Your task to perform on an android device: Open the Play Movies app and select the watchlist tab. Image 0: 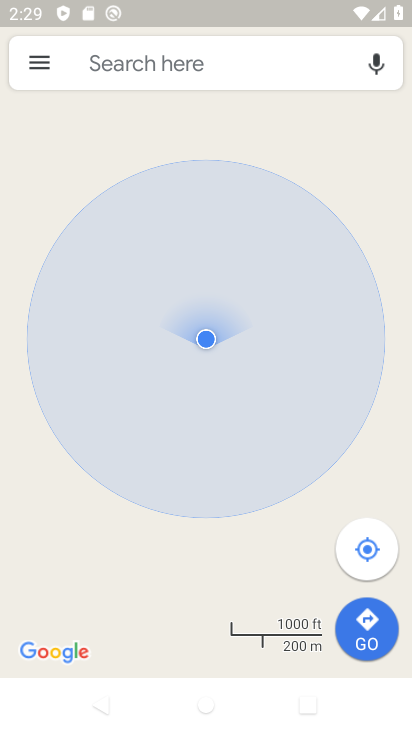
Step 0: press home button
Your task to perform on an android device: Open the Play Movies app and select the watchlist tab. Image 1: 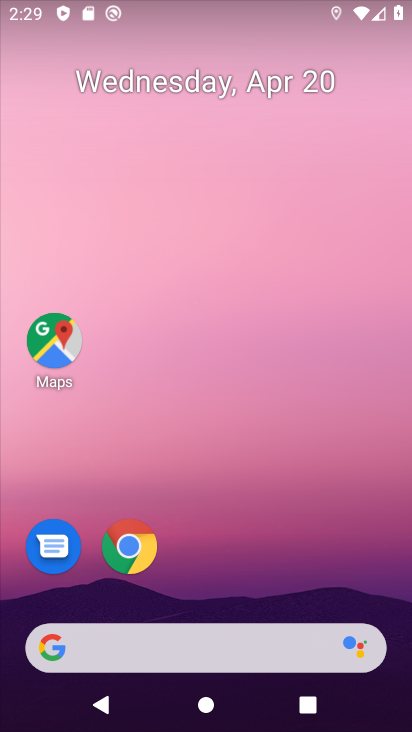
Step 1: drag from (257, 501) to (260, 100)
Your task to perform on an android device: Open the Play Movies app and select the watchlist tab. Image 2: 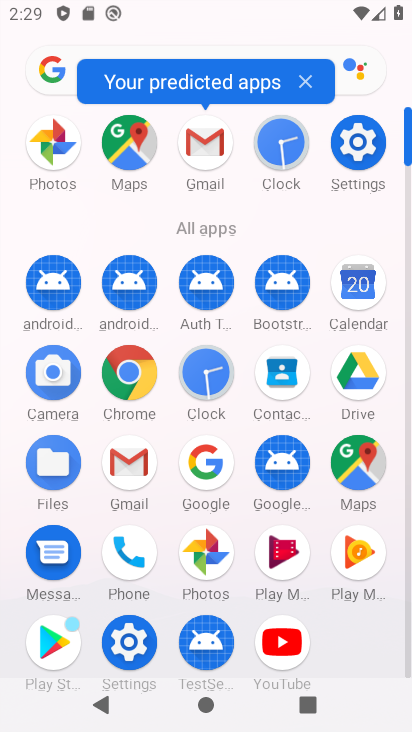
Step 2: click (292, 565)
Your task to perform on an android device: Open the Play Movies app and select the watchlist tab. Image 3: 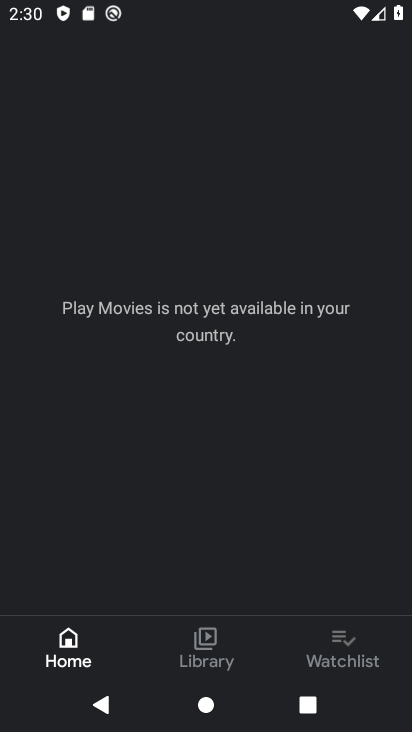
Step 3: click (347, 644)
Your task to perform on an android device: Open the Play Movies app and select the watchlist tab. Image 4: 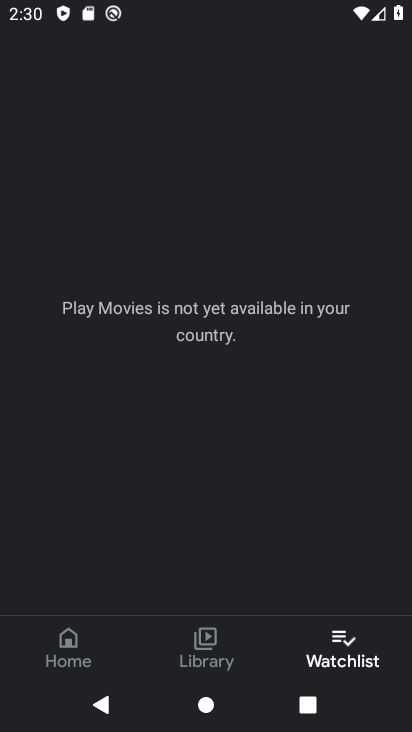
Step 4: task complete